Your task to perform on an android device: Open the map Image 0: 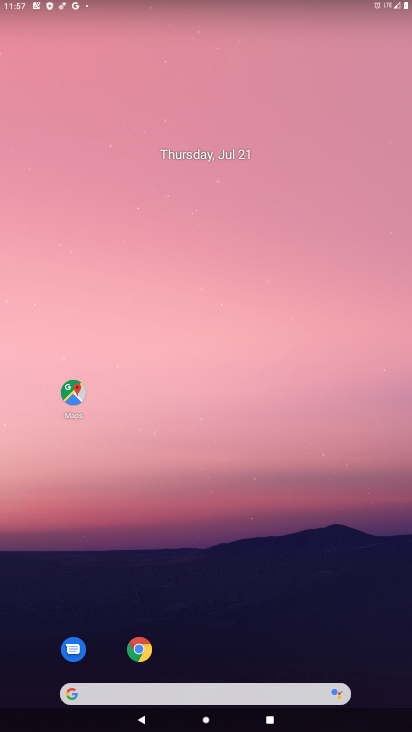
Step 0: drag from (308, 603) to (217, 93)
Your task to perform on an android device: Open the map Image 1: 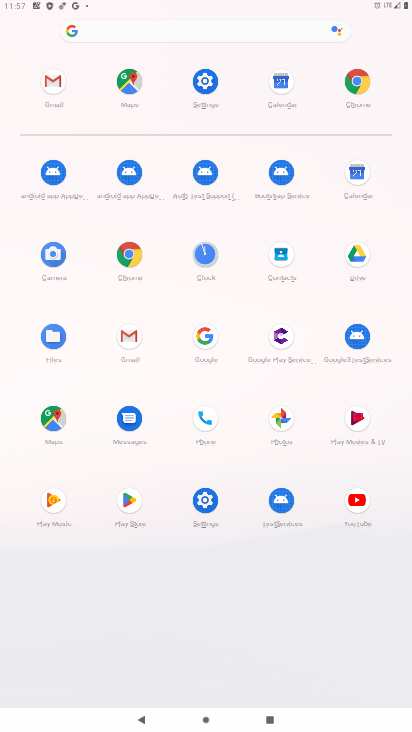
Step 1: click (129, 79)
Your task to perform on an android device: Open the map Image 2: 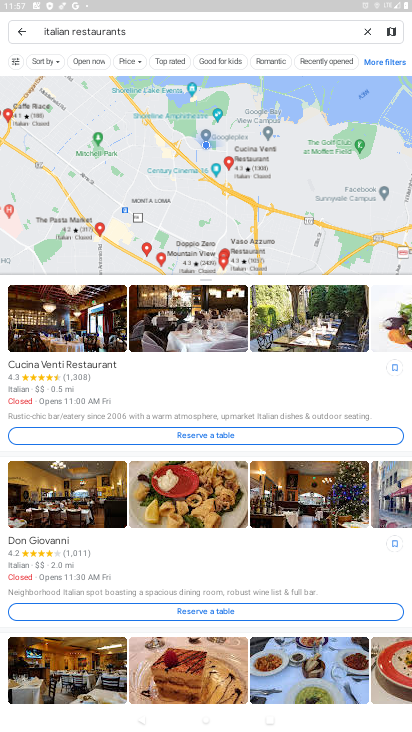
Step 2: task complete